Your task to perform on an android device: check out phone information Image 0: 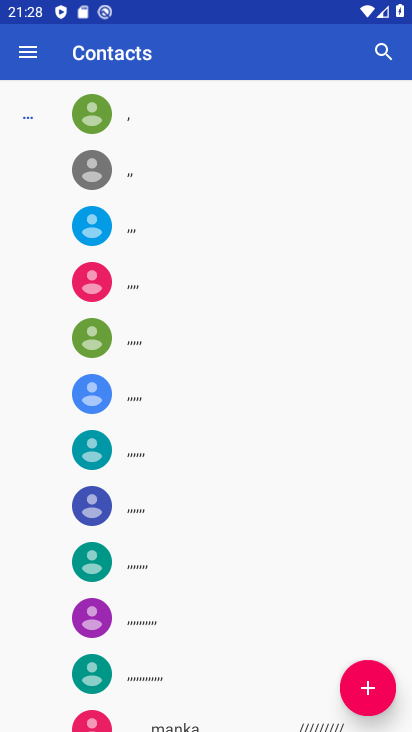
Step 0: press home button
Your task to perform on an android device: check out phone information Image 1: 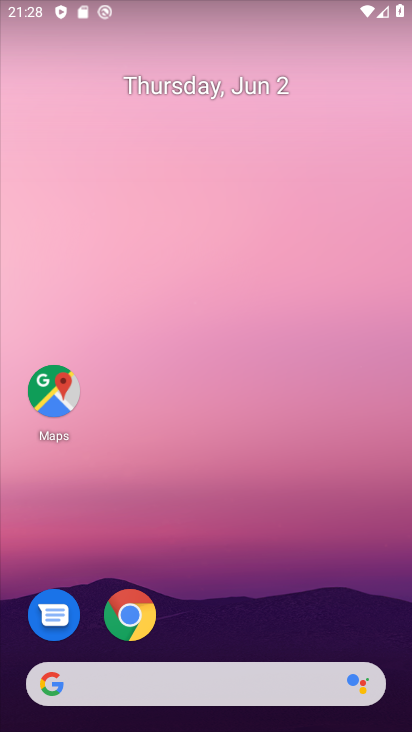
Step 1: drag from (204, 640) to (243, 238)
Your task to perform on an android device: check out phone information Image 2: 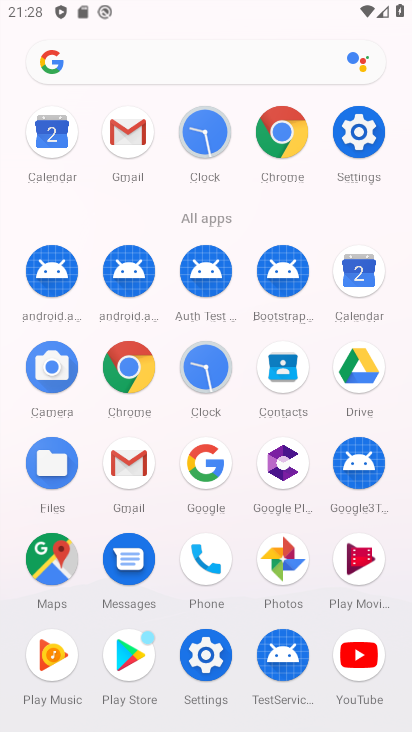
Step 2: click (359, 132)
Your task to perform on an android device: check out phone information Image 3: 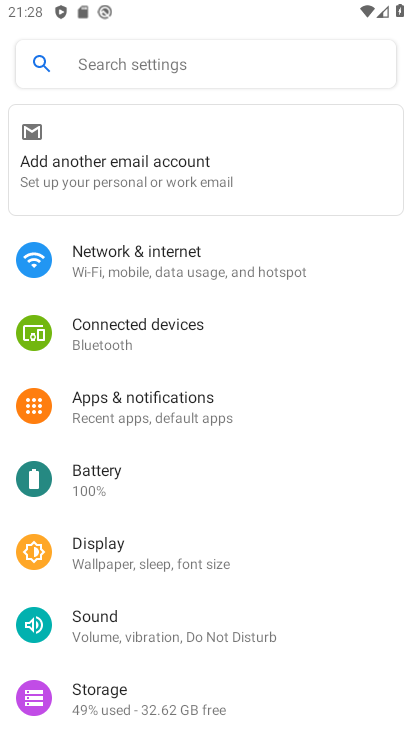
Step 3: task complete